Your task to perform on an android device: set an alarm Image 0: 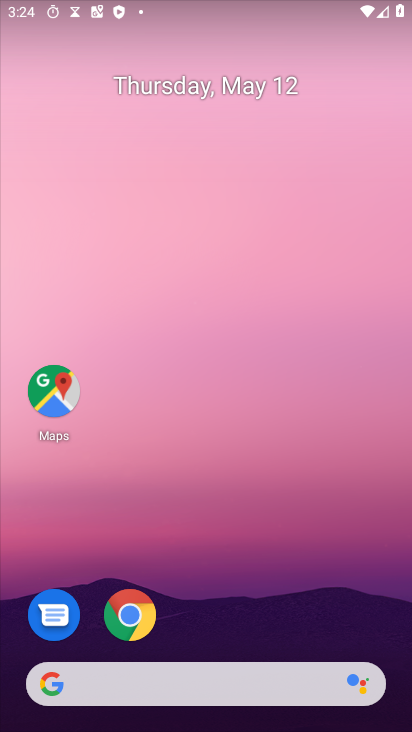
Step 0: press home button
Your task to perform on an android device: set an alarm Image 1: 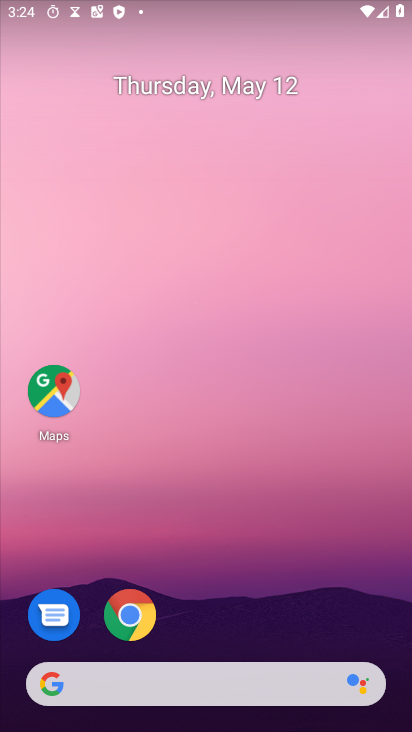
Step 1: drag from (20, 588) to (290, 84)
Your task to perform on an android device: set an alarm Image 2: 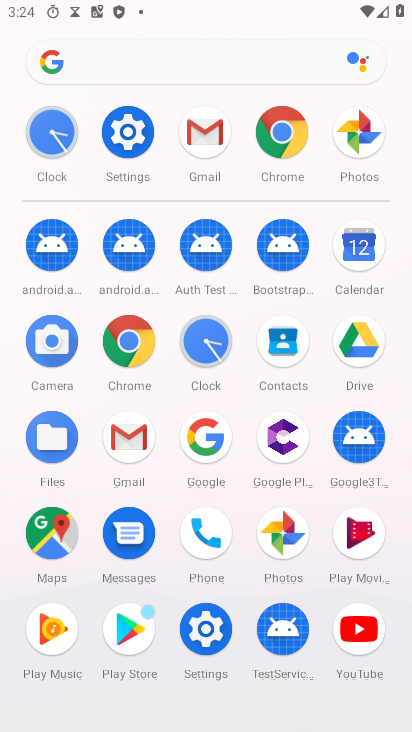
Step 2: click (217, 345)
Your task to perform on an android device: set an alarm Image 3: 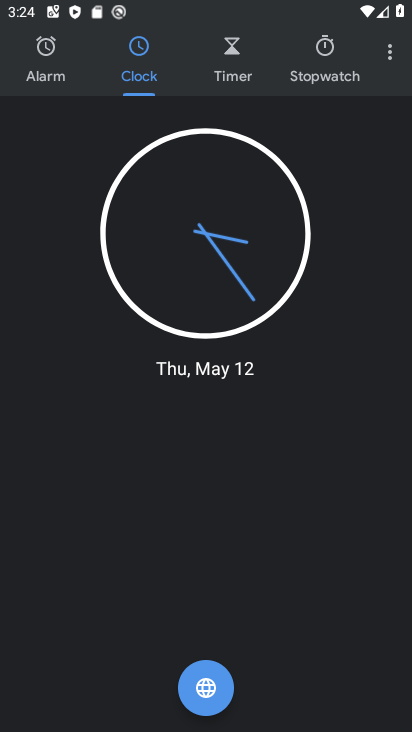
Step 3: click (53, 62)
Your task to perform on an android device: set an alarm Image 4: 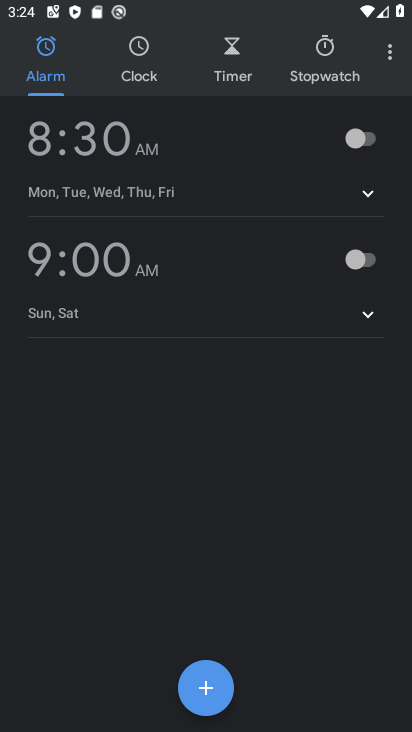
Step 4: click (211, 690)
Your task to perform on an android device: set an alarm Image 5: 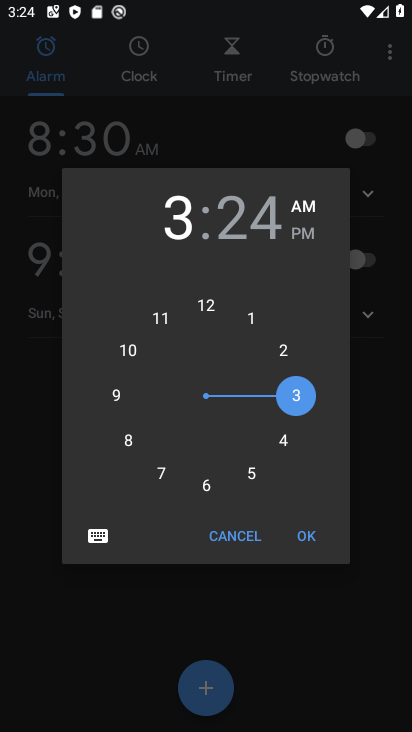
Step 5: click (306, 528)
Your task to perform on an android device: set an alarm Image 6: 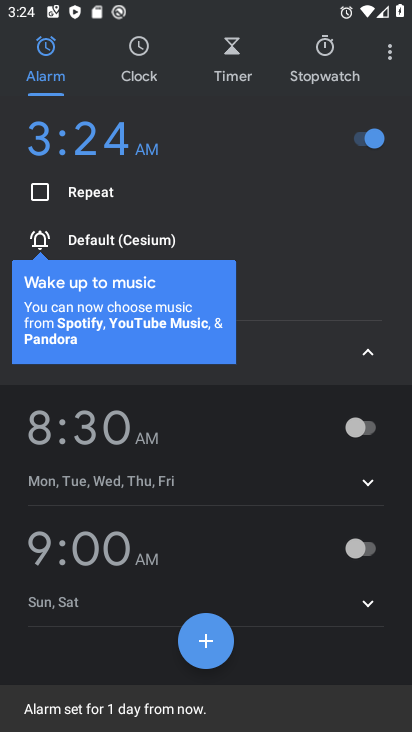
Step 6: task complete